Your task to perform on an android device: Open Google Chrome and open the bookmarks view Image 0: 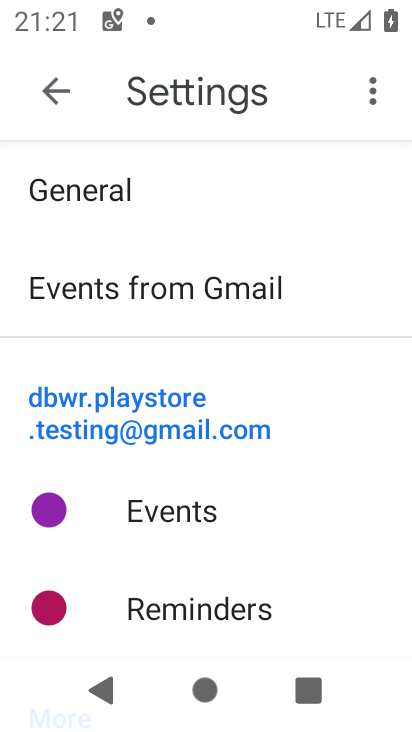
Step 0: drag from (236, 564) to (313, 248)
Your task to perform on an android device: Open Google Chrome and open the bookmarks view Image 1: 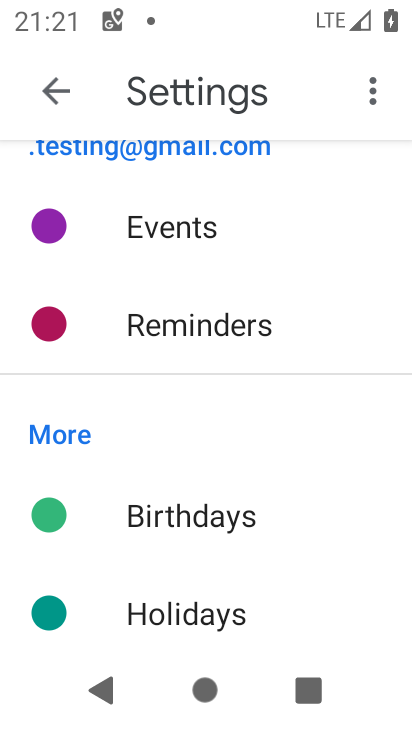
Step 1: press home button
Your task to perform on an android device: Open Google Chrome and open the bookmarks view Image 2: 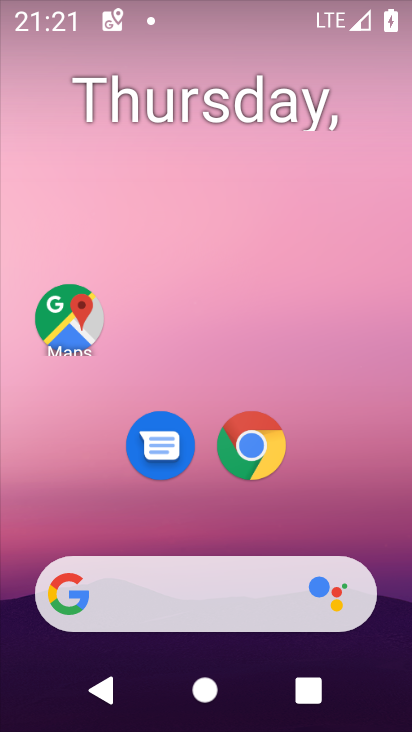
Step 2: drag from (197, 539) to (243, 99)
Your task to perform on an android device: Open Google Chrome and open the bookmarks view Image 3: 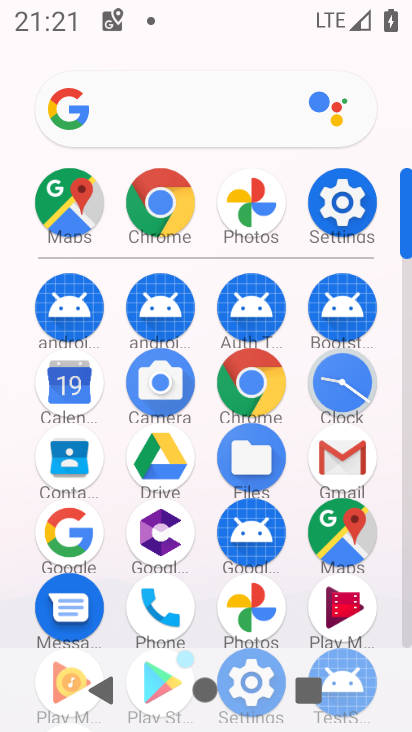
Step 3: click (253, 383)
Your task to perform on an android device: Open Google Chrome and open the bookmarks view Image 4: 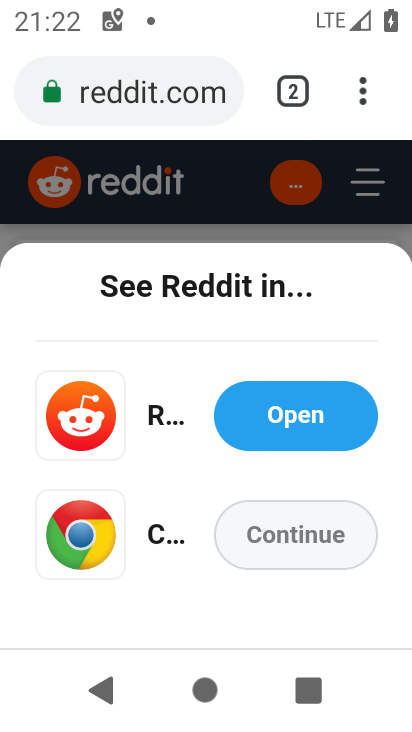
Step 4: click (344, 68)
Your task to perform on an android device: Open Google Chrome and open the bookmarks view Image 5: 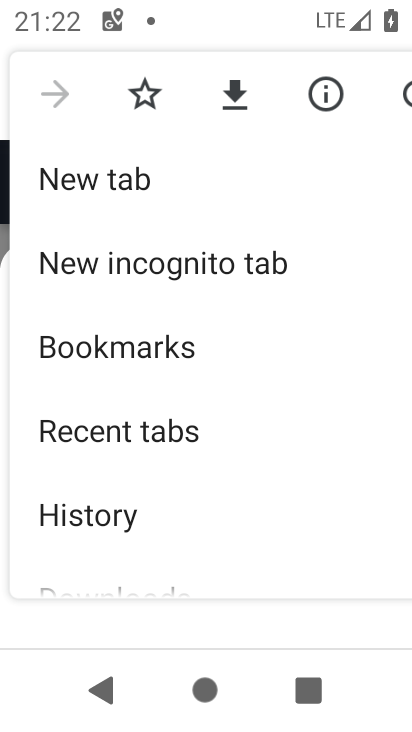
Step 5: click (138, 88)
Your task to perform on an android device: Open Google Chrome and open the bookmarks view Image 6: 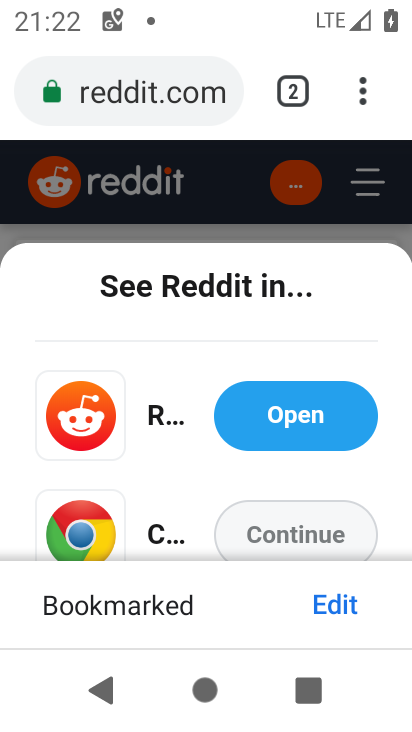
Step 6: click (349, 108)
Your task to perform on an android device: Open Google Chrome and open the bookmarks view Image 7: 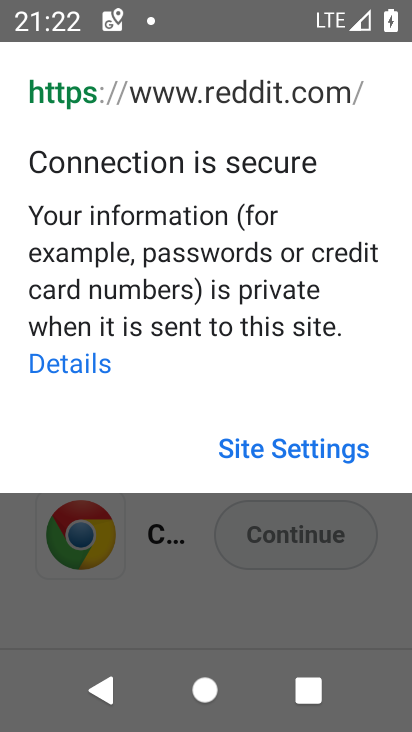
Step 7: drag from (175, 358) to (323, 167)
Your task to perform on an android device: Open Google Chrome and open the bookmarks view Image 8: 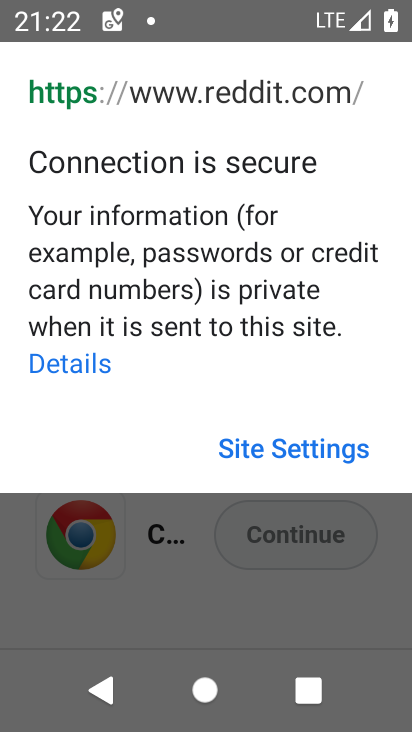
Step 8: click (291, 458)
Your task to perform on an android device: Open Google Chrome and open the bookmarks view Image 9: 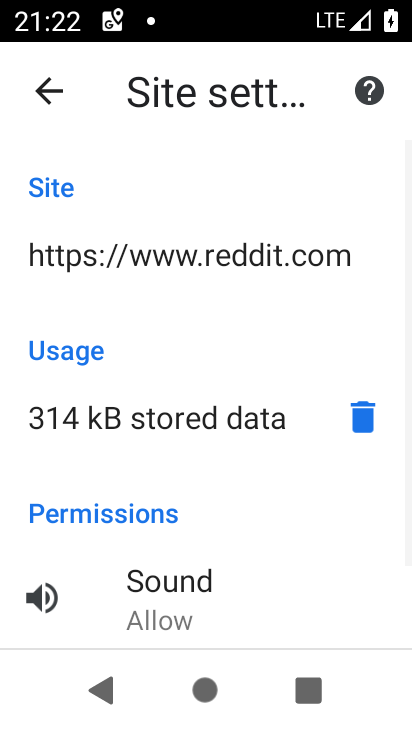
Step 9: click (51, 93)
Your task to perform on an android device: Open Google Chrome and open the bookmarks view Image 10: 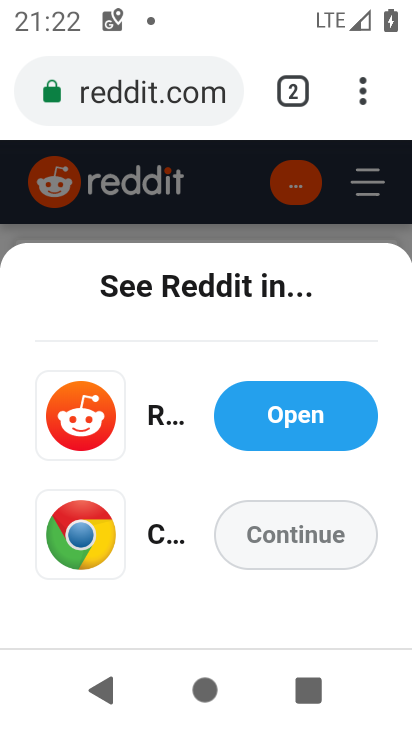
Step 10: click (370, 80)
Your task to perform on an android device: Open Google Chrome and open the bookmarks view Image 11: 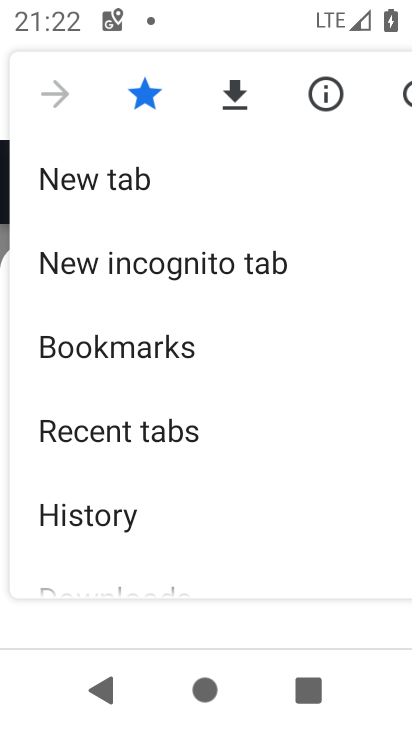
Step 11: click (136, 369)
Your task to perform on an android device: Open Google Chrome and open the bookmarks view Image 12: 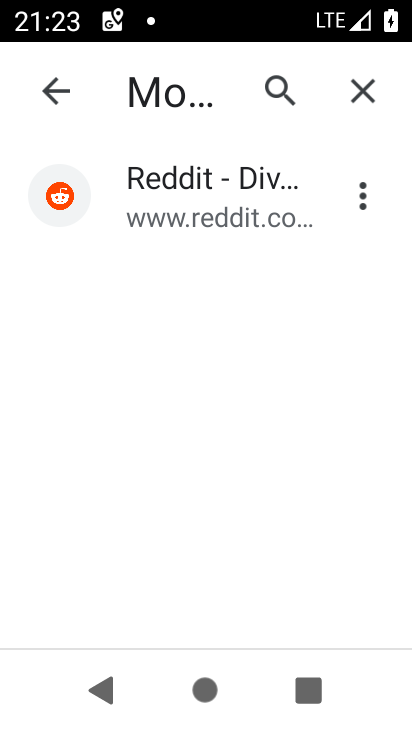
Step 12: task complete